Your task to perform on an android device: turn on data saver in the chrome app Image 0: 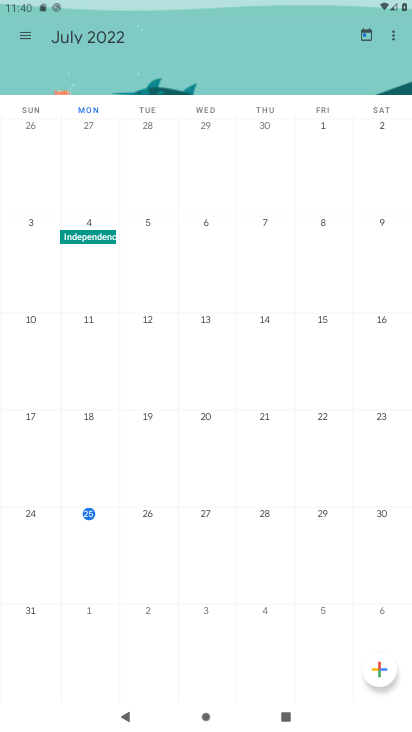
Step 0: press home button
Your task to perform on an android device: turn on data saver in the chrome app Image 1: 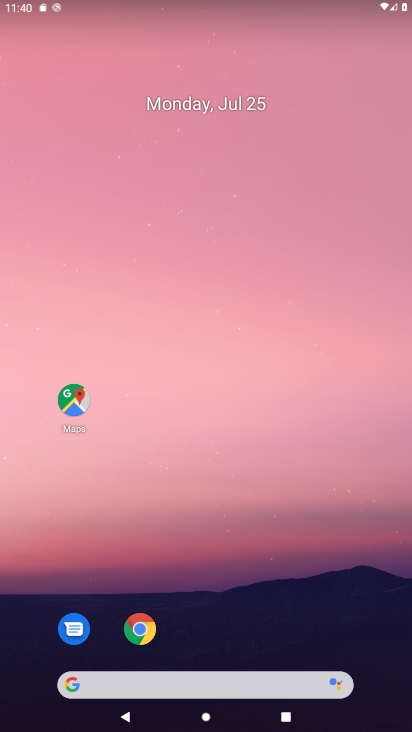
Step 1: click (141, 631)
Your task to perform on an android device: turn on data saver in the chrome app Image 2: 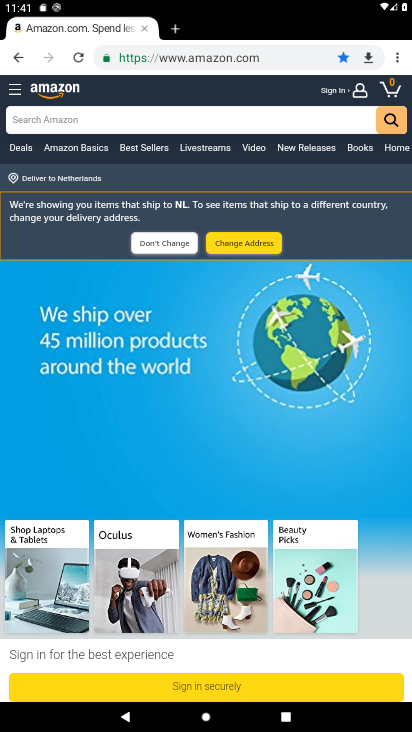
Step 2: drag from (404, 63) to (281, 388)
Your task to perform on an android device: turn on data saver in the chrome app Image 3: 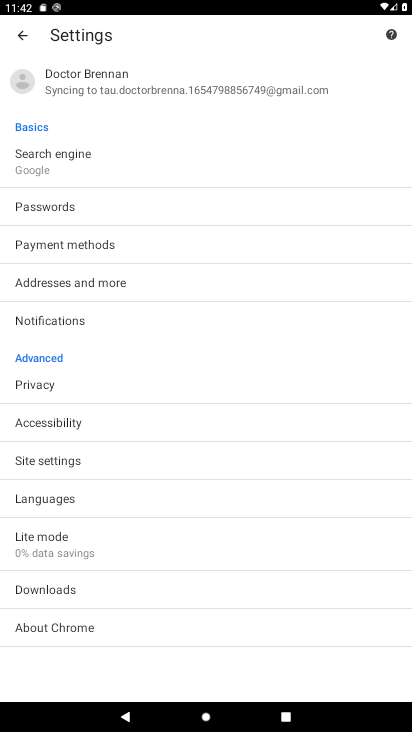
Step 3: click (68, 542)
Your task to perform on an android device: turn on data saver in the chrome app Image 4: 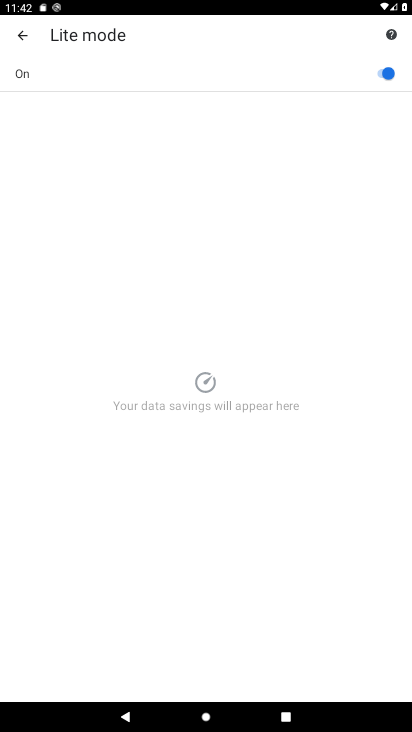
Step 4: task complete